Your task to perform on an android device: toggle pop-ups in chrome Image 0: 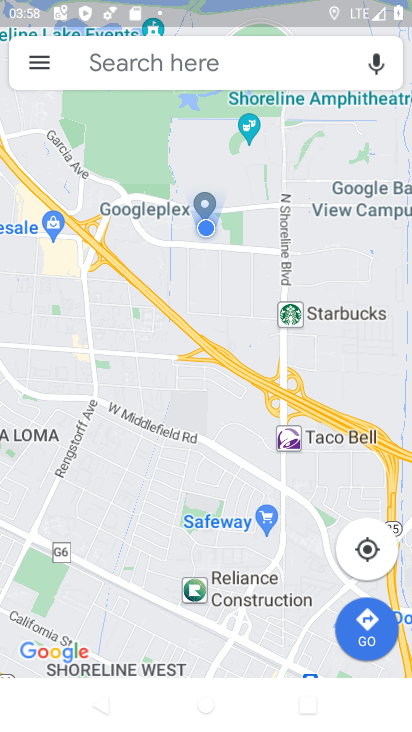
Step 0: press home button
Your task to perform on an android device: toggle pop-ups in chrome Image 1: 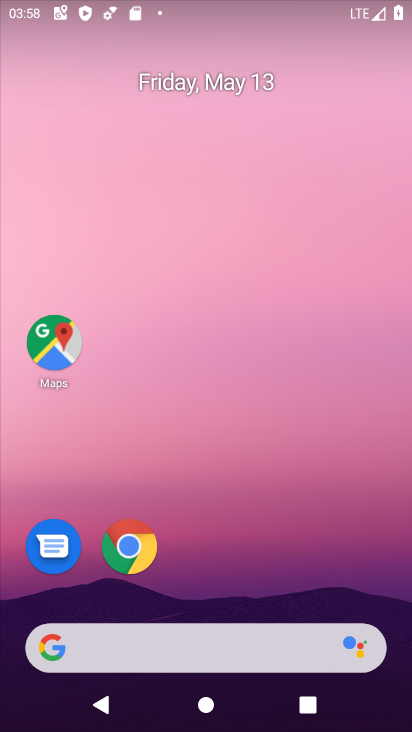
Step 1: click (127, 548)
Your task to perform on an android device: toggle pop-ups in chrome Image 2: 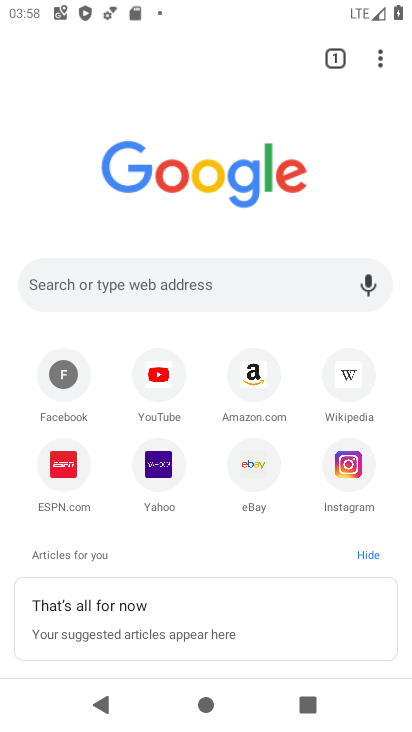
Step 2: click (387, 47)
Your task to perform on an android device: toggle pop-ups in chrome Image 3: 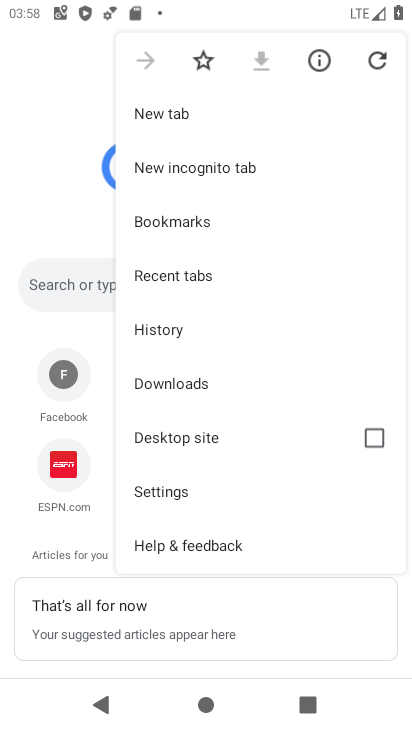
Step 3: click (195, 495)
Your task to perform on an android device: toggle pop-ups in chrome Image 4: 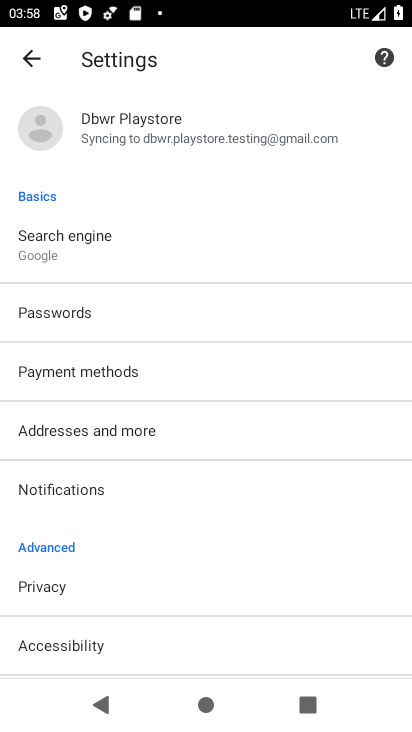
Step 4: drag from (157, 547) to (229, 174)
Your task to perform on an android device: toggle pop-ups in chrome Image 5: 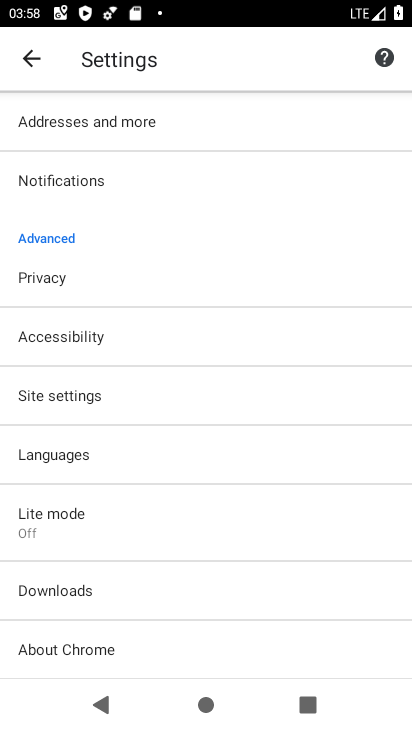
Step 5: click (99, 417)
Your task to perform on an android device: toggle pop-ups in chrome Image 6: 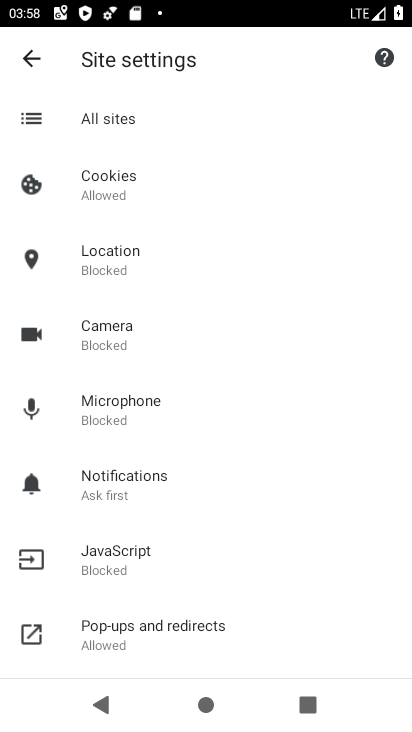
Step 6: click (162, 625)
Your task to perform on an android device: toggle pop-ups in chrome Image 7: 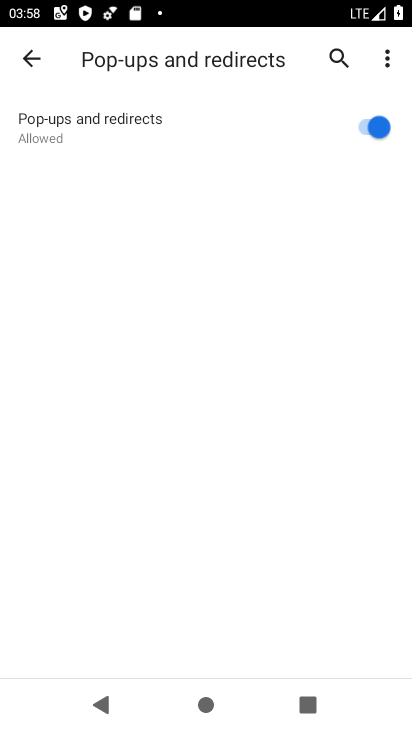
Step 7: click (349, 140)
Your task to perform on an android device: toggle pop-ups in chrome Image 8: 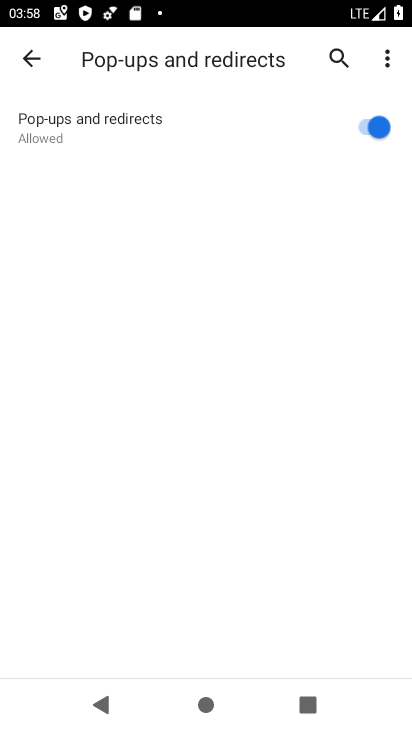
Step 8: click (349, 140)
Your task to perform on an android device: toggle pop-ups in chrome Image 9: 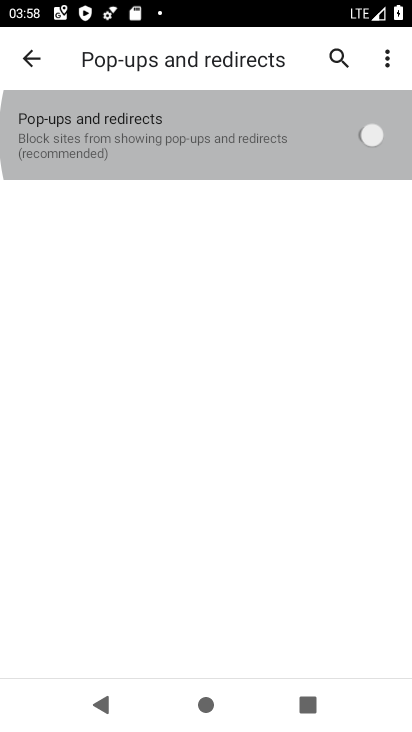
Step 9: click (349, 140)
Your task to perform on an android device: toggle pop-ups in chrome Image 10: 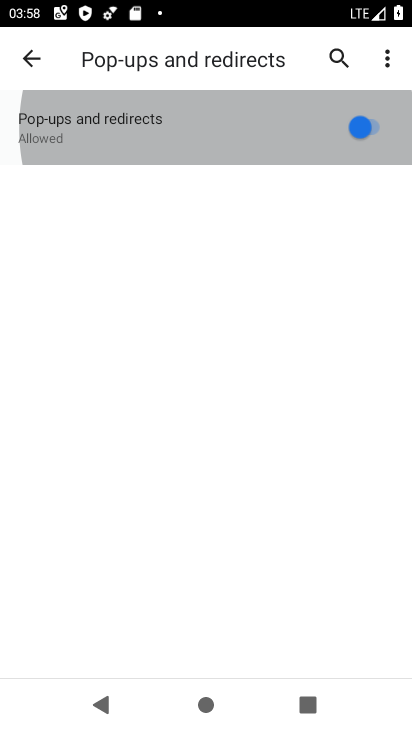
Step 10: click (349, 140)
Your task to perform on an android device: toggle pop-ups in chrome Image 11: 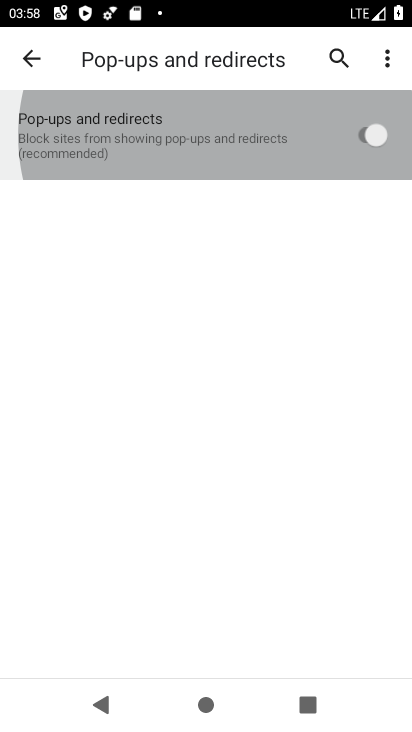
Step 11: click (349, 140)
Your task to perform on an android device: toggle pop-ups in chrome Image 12: 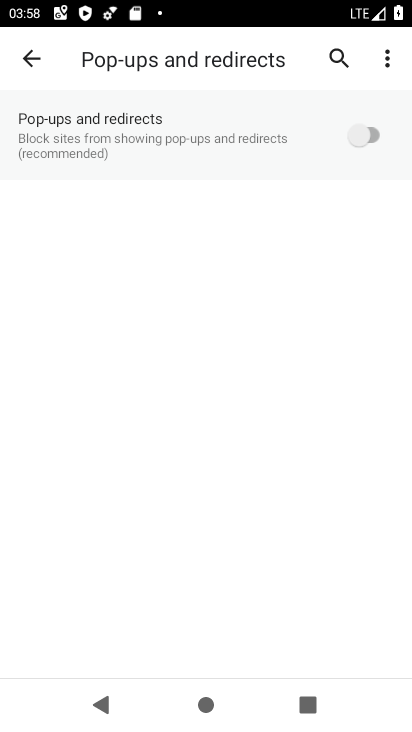
Step 12: click (349, 140)
Your task to perform on an android device: toggle pop-ups in chrome Image 13: 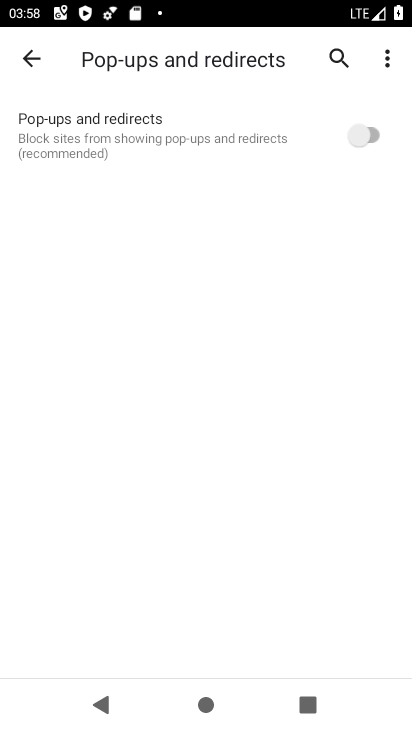
Step 13: task complete